Your task to perform on an android device: Open the Play Movies app and select the watchlist tab. Image 0: 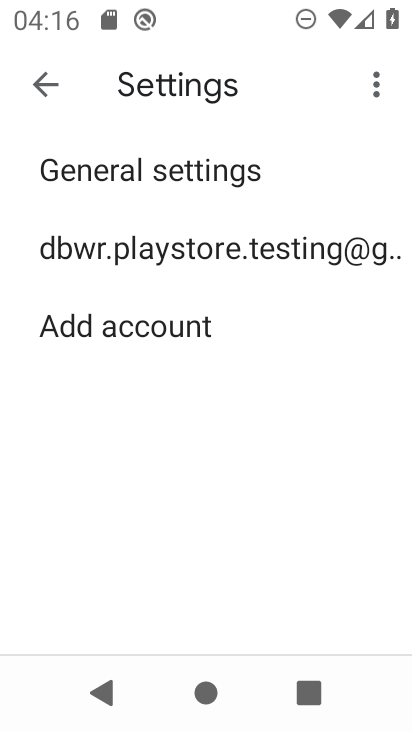
Step 0: press back button
Your task to perform on an android device: Open the Play Movies app and select the watchlist tab. Image 1: 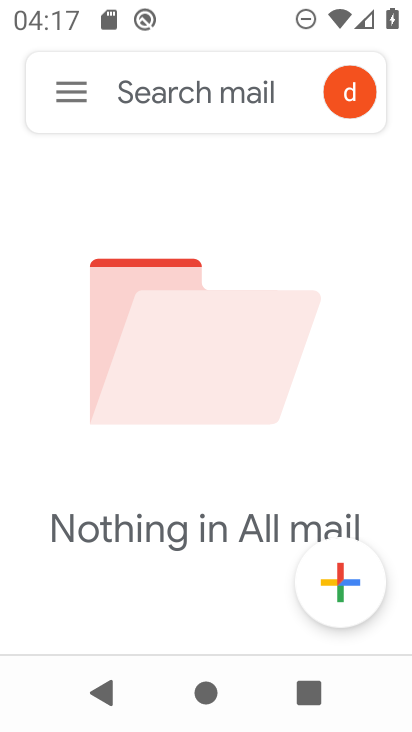
Step 1: press back button
Your task to perform on an android device: Open the Play Movies app and select the watchlist tab. Image 2: 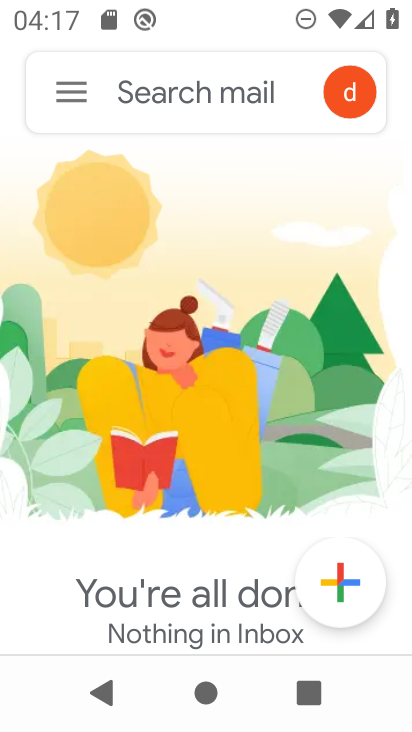
Step 2: press back button
Your task to perform on an android device: Open the Play Movies app and select the watchlist tab. Image 3: 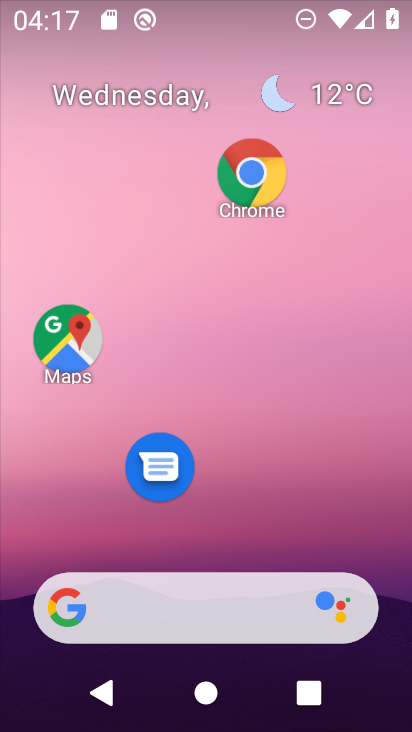
Step 3: drag from (320, 509) to (387, 77)
Your task to perform on an android device: Open the Play Movies app and select the watchlist tab. Image 4: 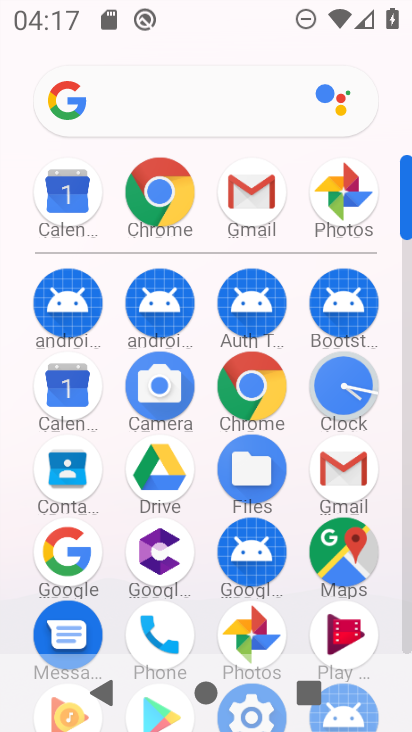
Step 4: click (341, 630)
Your task to perform on an android device: Open the Play Movies app and select the watchlist tab. Image 5: 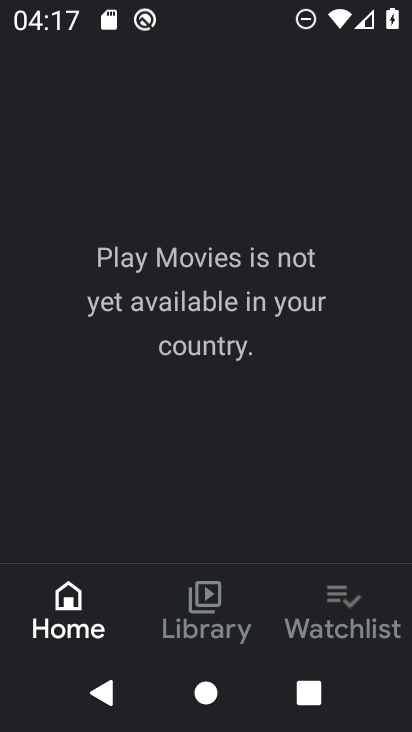
Step 5: click (306, 598)
Your task to perform on an android device: Open the Play Movies app and select the watchlist tab. Image 6: 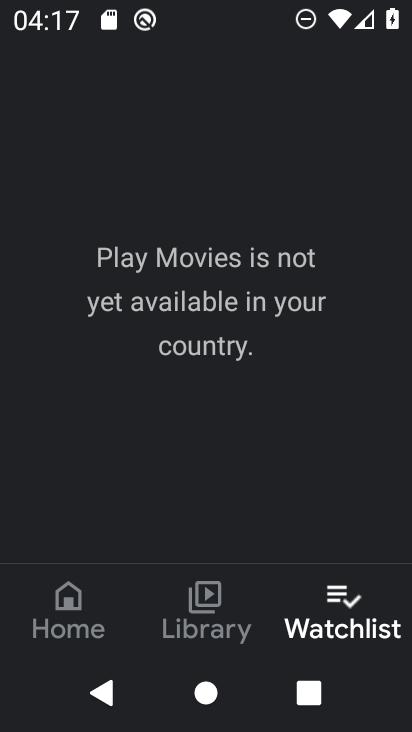
Step 6: task complete